Your task to perform on an android device: View the shopping cart on amazon.com. Search for razer huntsman on amazon.com, select the first entry, and add it to the cart. Image 0: 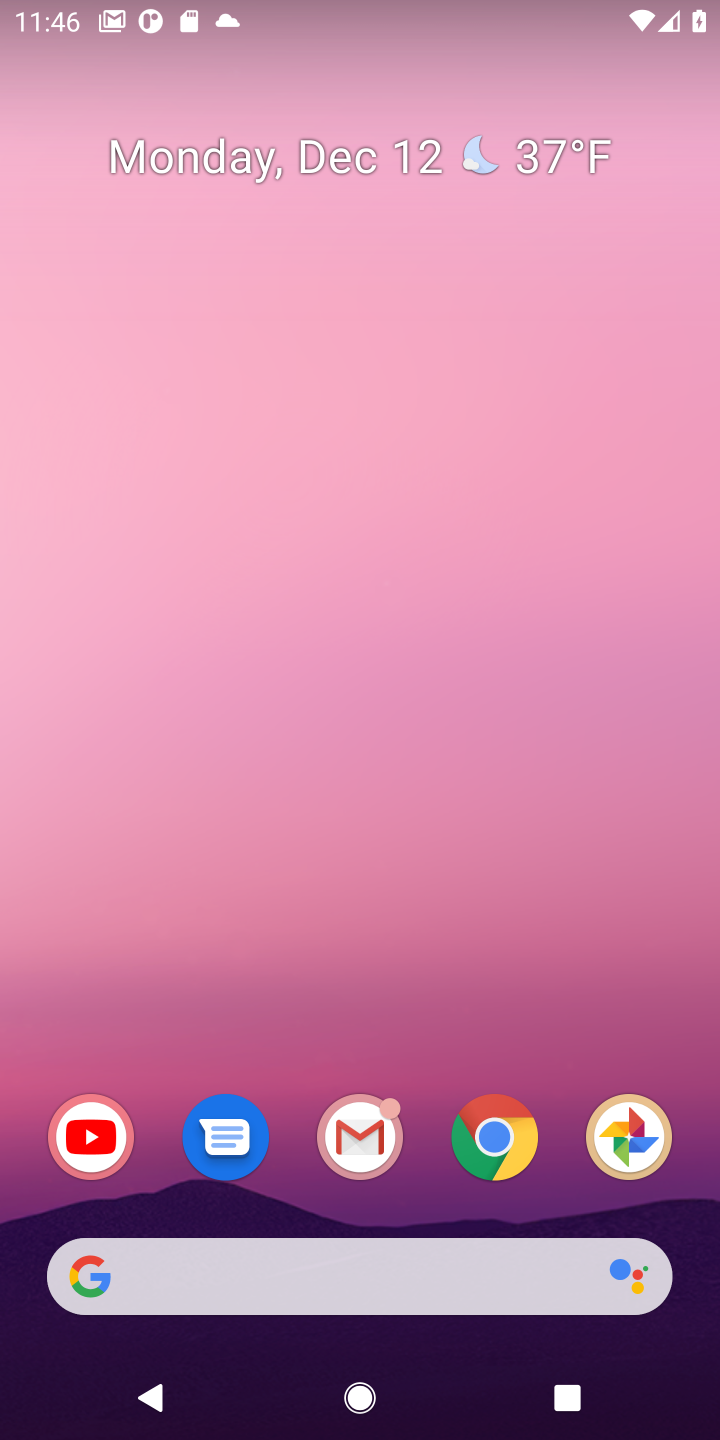
Step 0: click (379, 1265)
Your task to perform on an android device: View the shopping cart on amazon.com. Search for razer huntsman on amazon.com, select the first entry, and add it to the cart. Image 1: 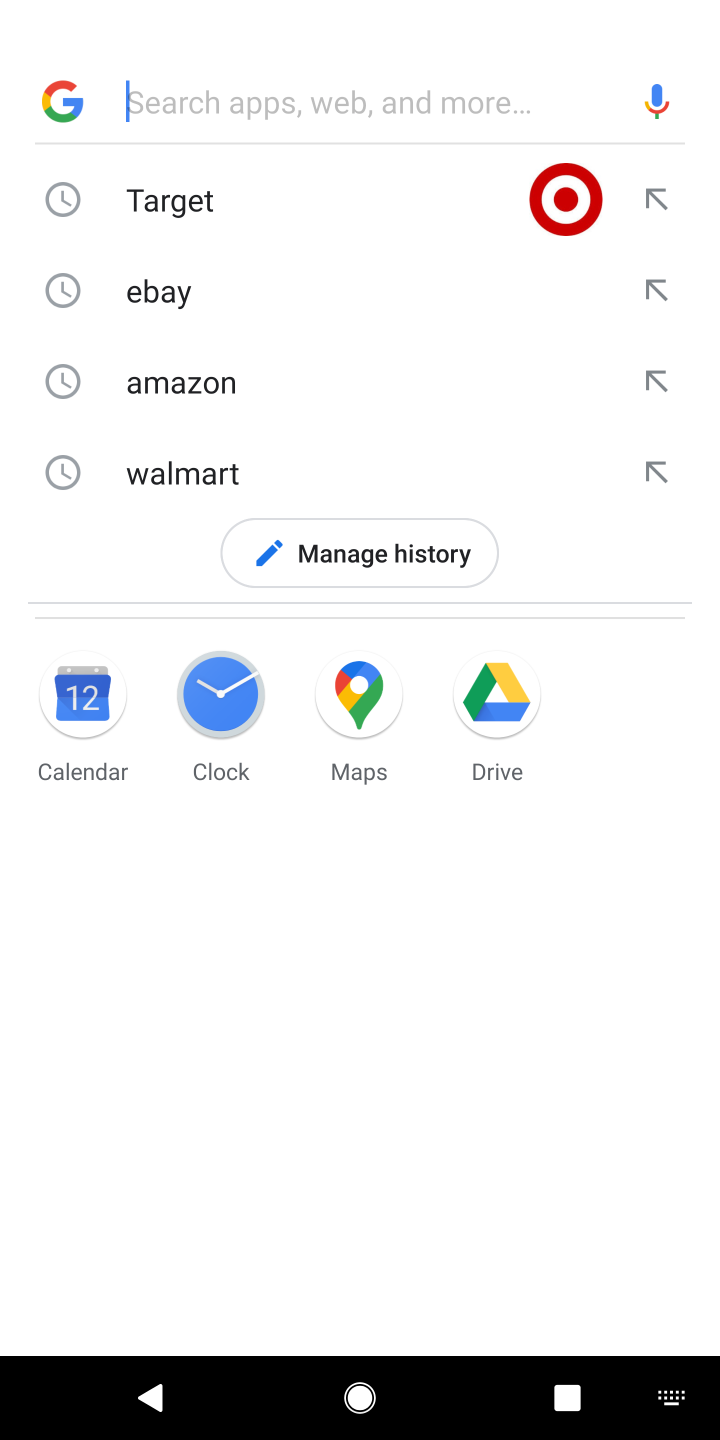
Step 1: type "amazon"
Your task to perform on an android device: View the shopping cart on amazon.com. Search for razer huntsman on amazon.com, select the first entry, and add it to the cart. Image 2: 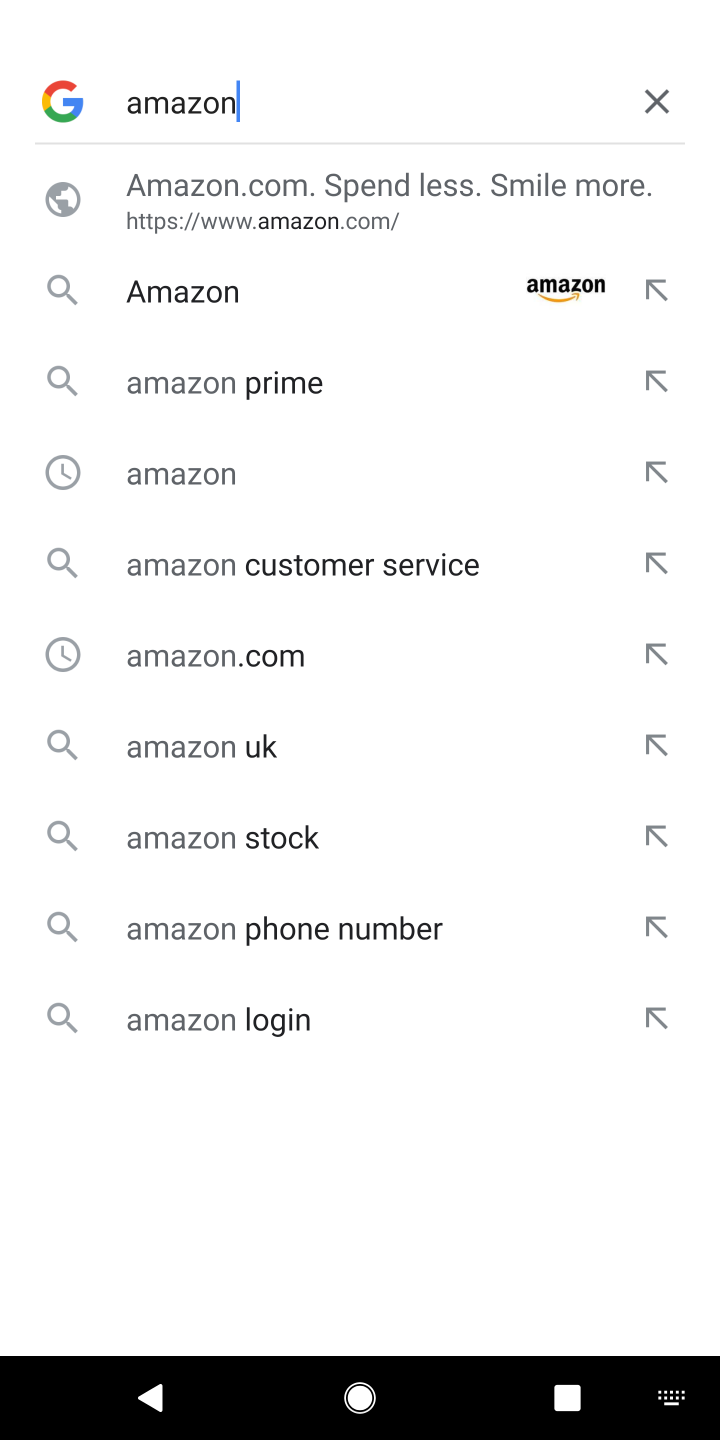
Step 2: click (280, 232)
Your task to perform on an android device: View the shopping cart on amazon.com. Search for razer huntsman on amazon.com, select the first entry, and add it to the cart. Image 3: 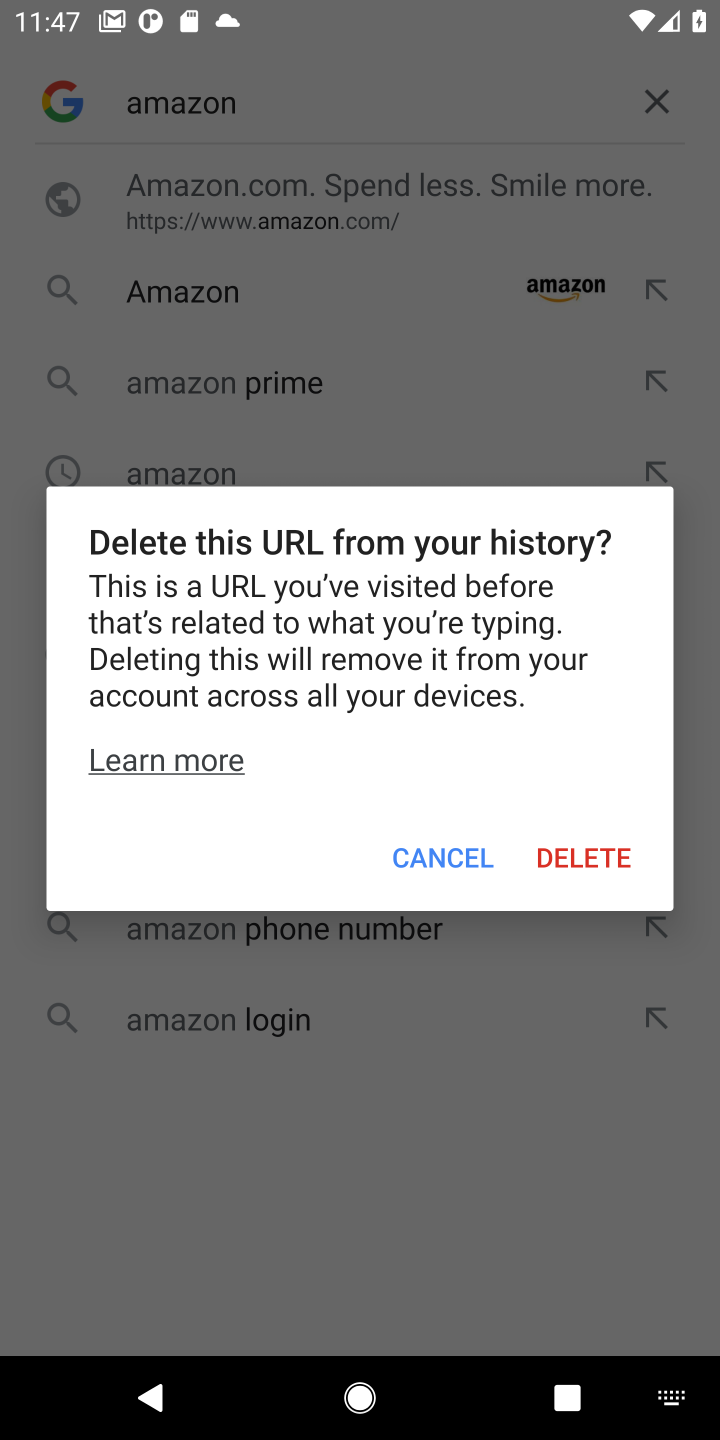
Step 3: click (470, 849)
Your task to perform on an android device: View the shopping cart on amazon.com. Search for razer huntsman on amazon.com, select the first entry, and add it to the cart. Image 4: 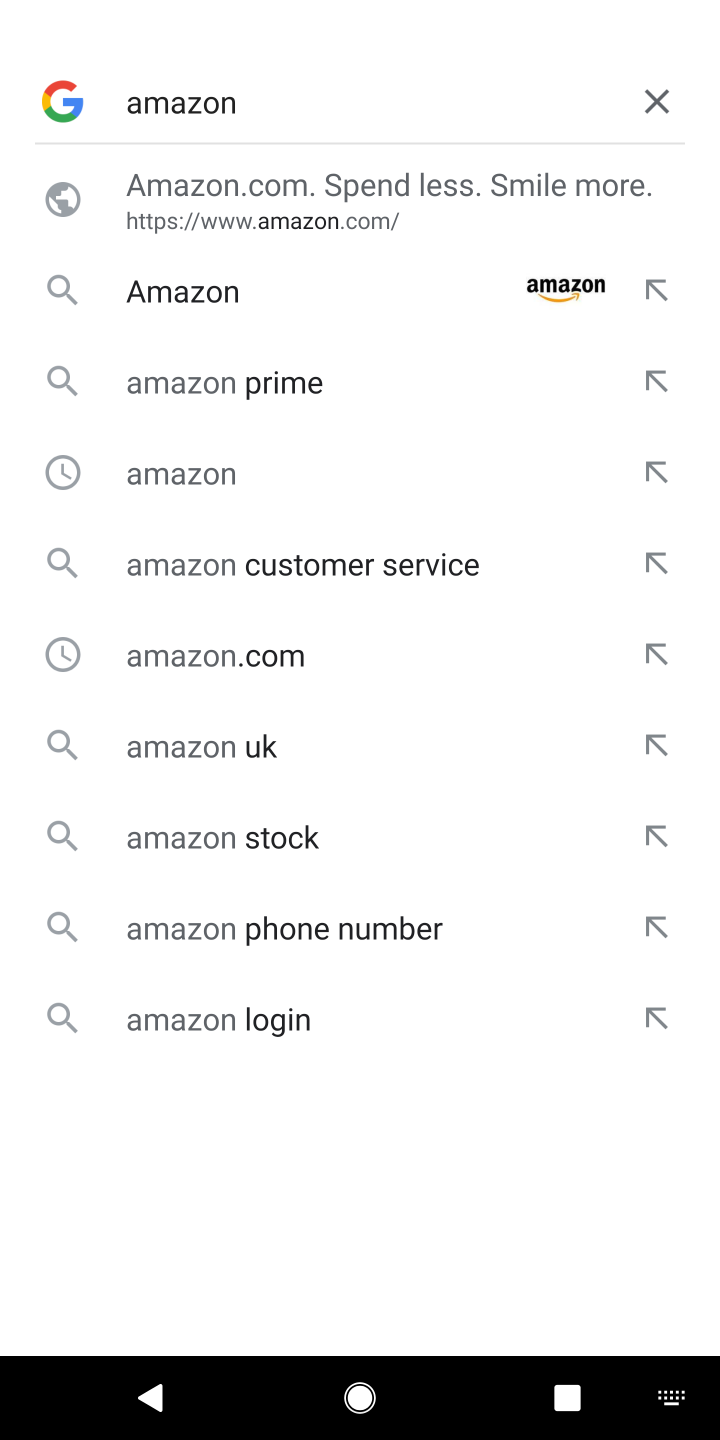
Step 4: click (287, 250)
Your task to perform on an android device: View the shopping cart on amazon.com. Search for razer huntsman on amazon.com, select the first entry, and add it to the cart. Image 5: 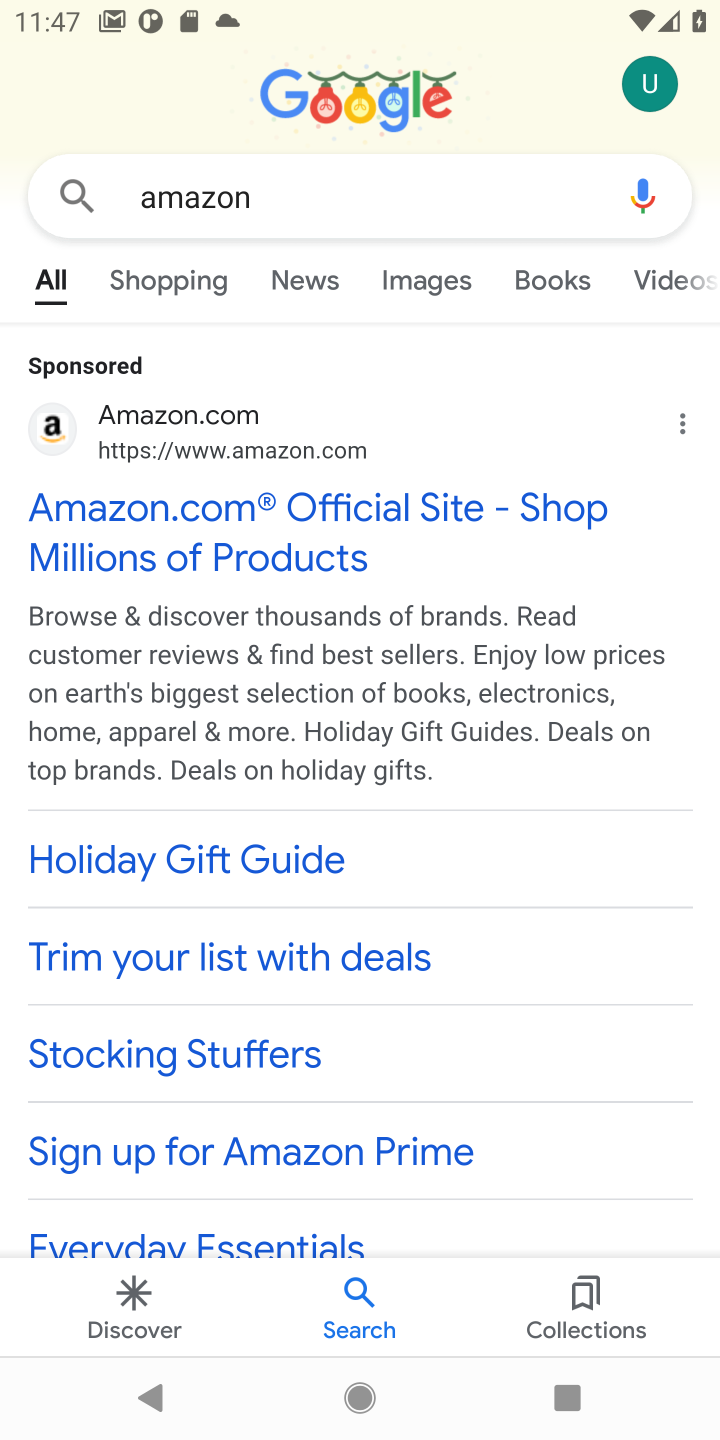
Step 5: click (228, 588)
Your task to perform on an android device: View the shopping cart on amazon.com. Search for razer huntsman on amazon.com, select the first entry, and add it to the cart. Image 6: 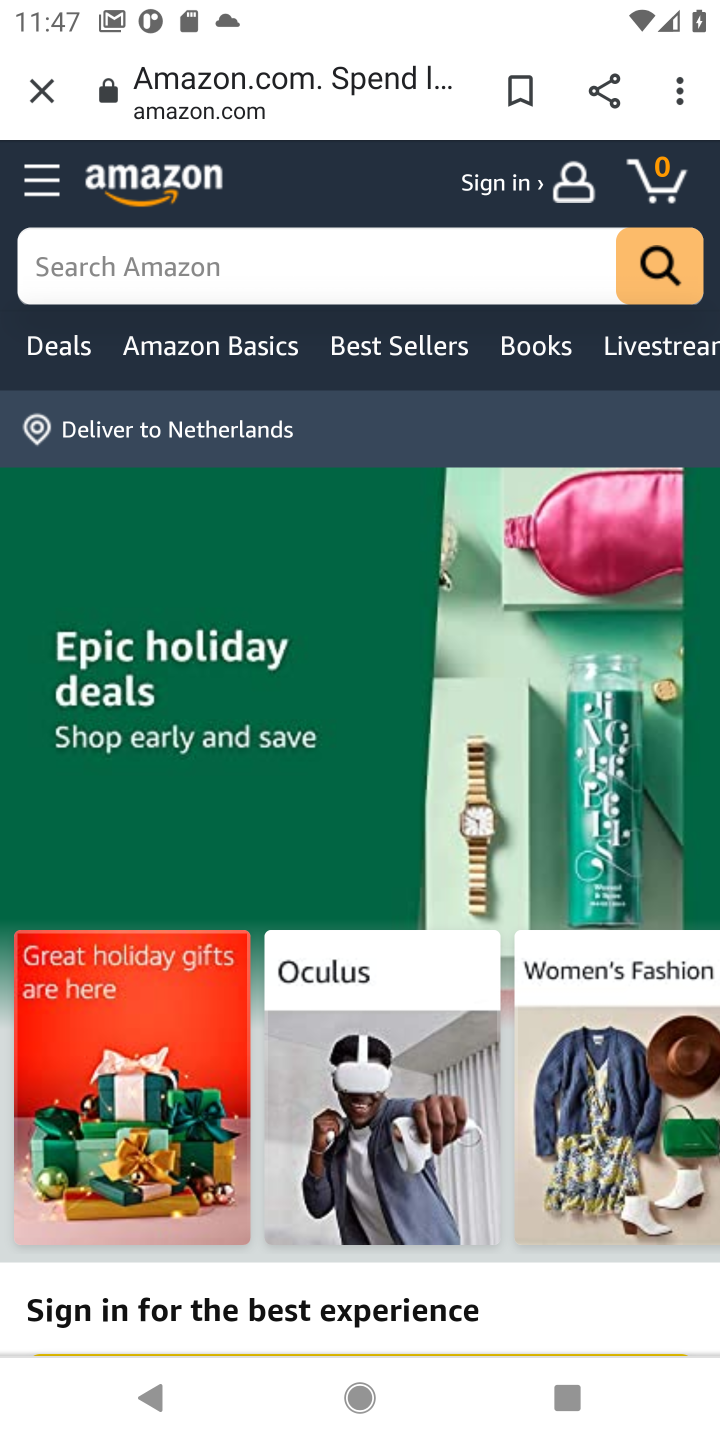
Step 6: click (301, 278)
Your task to perform on an android device: View the shopping cart on amazon.com. Search for razer huntsman on amazon.com, select the first entry, and add it to the cart. Image 7: 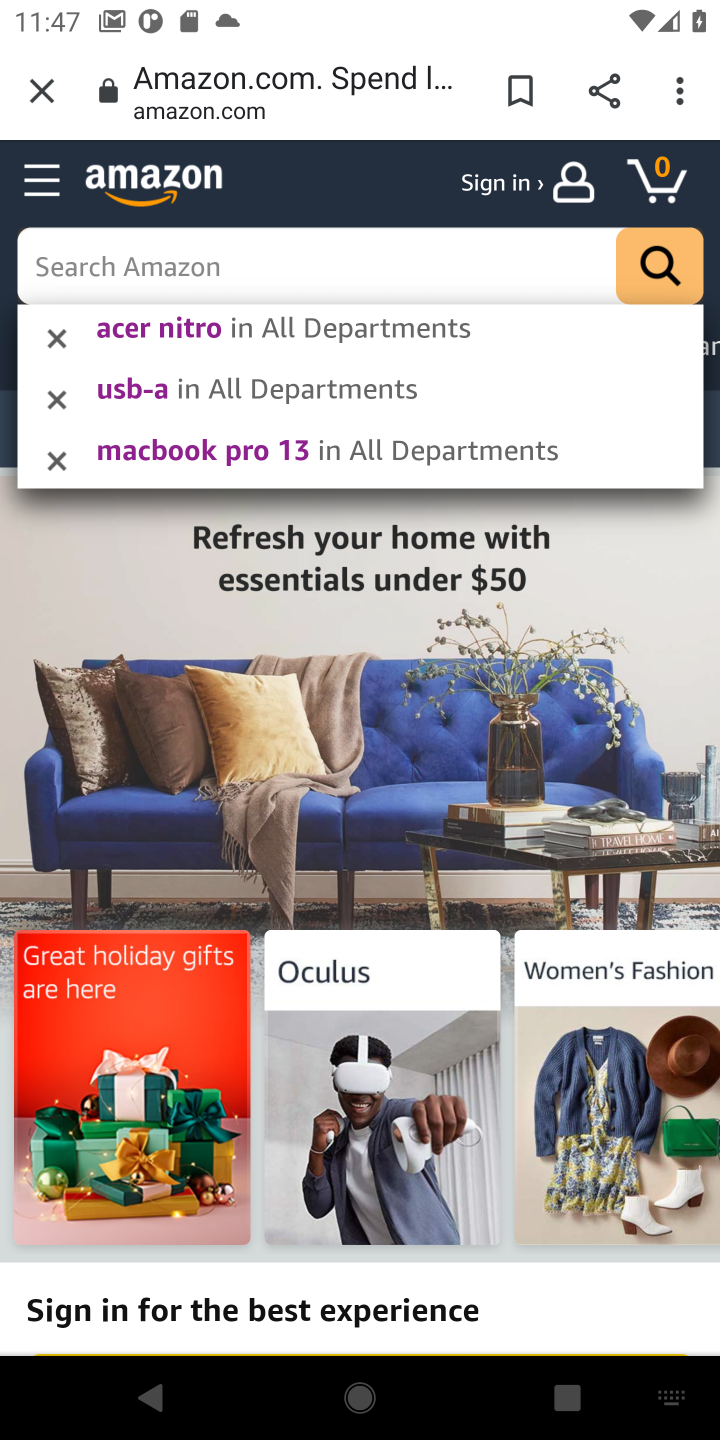
Step 7: type "razer huntsman"
Your task to perform on an android device: View the shopping cart on amazon.com. Search for razer huntsman on amazon.com, select the first entry, and add it to the cart. Image 8: 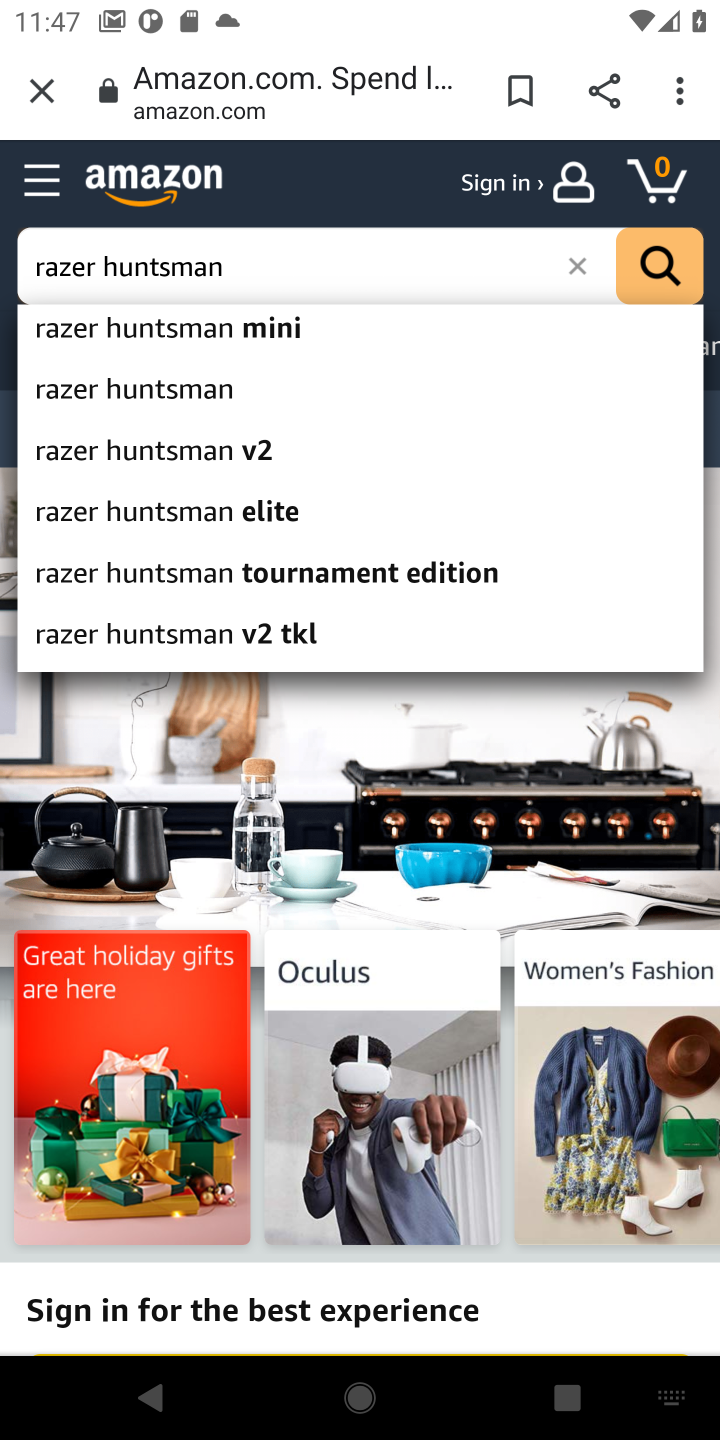
Step 8: click (662, 252)
Your task to perform on an android device: View the shopping cart on amazon.com. Search for razer huntsman on amazon.com, select the first entry, and add it to the cart. Image 9: 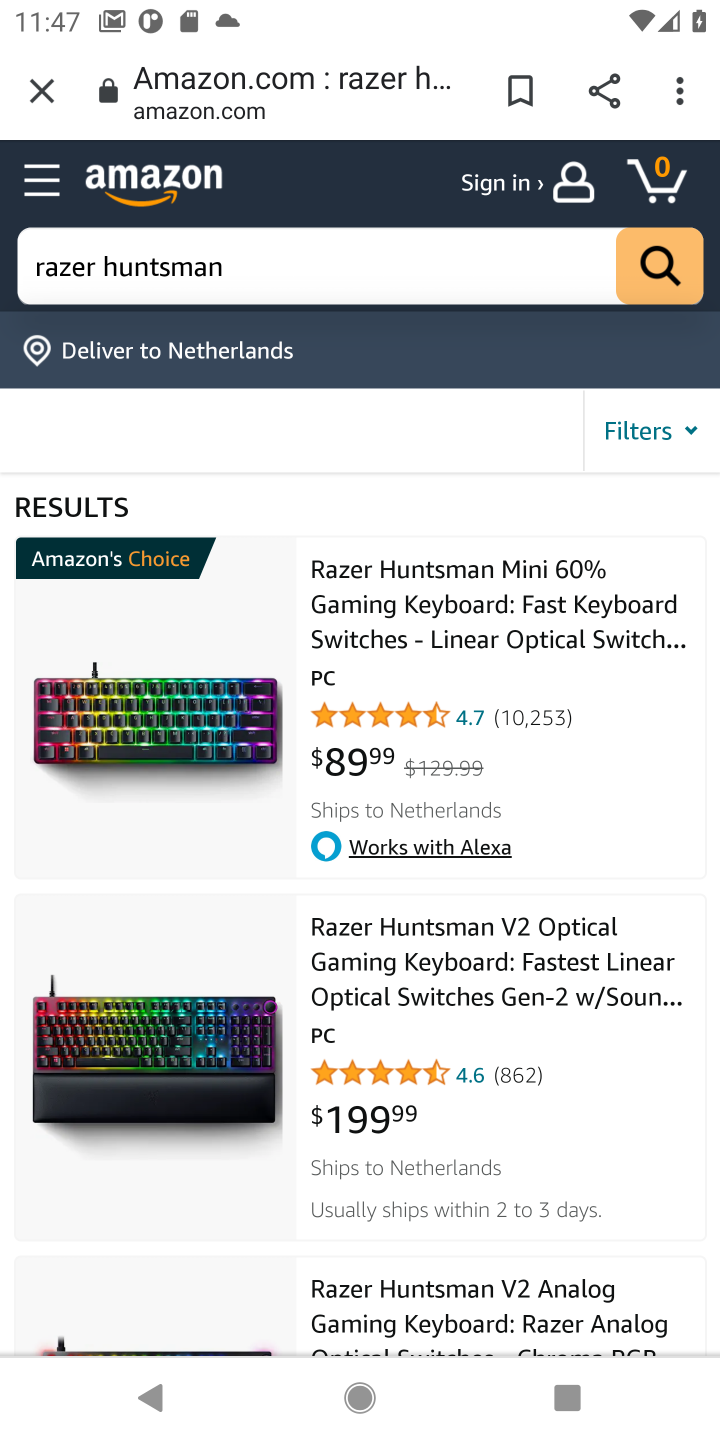
Step 9: click (497, 647)
Your task to perform on an android device: View the shopping cart on amazon.com. Search for razer huntsman on amazon.com, select the first entry, and add it to the cart. Image 10: 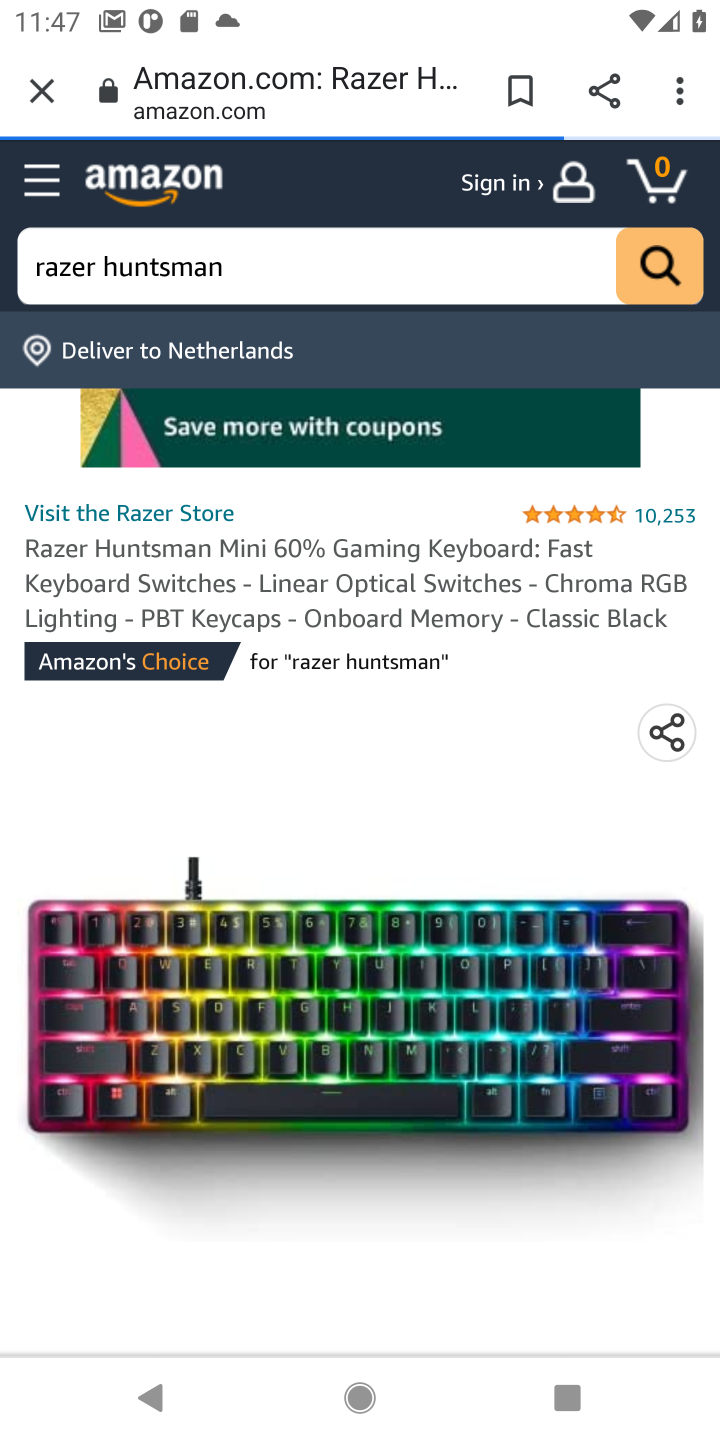
Step 10: drag from (338, 1063) to (396, 295)
Your task to perform on an android device: View the shopping cart on amazon.com. Search for razer huntsman on amazon.com, select the first entry, and add it to the cart. Image 11: 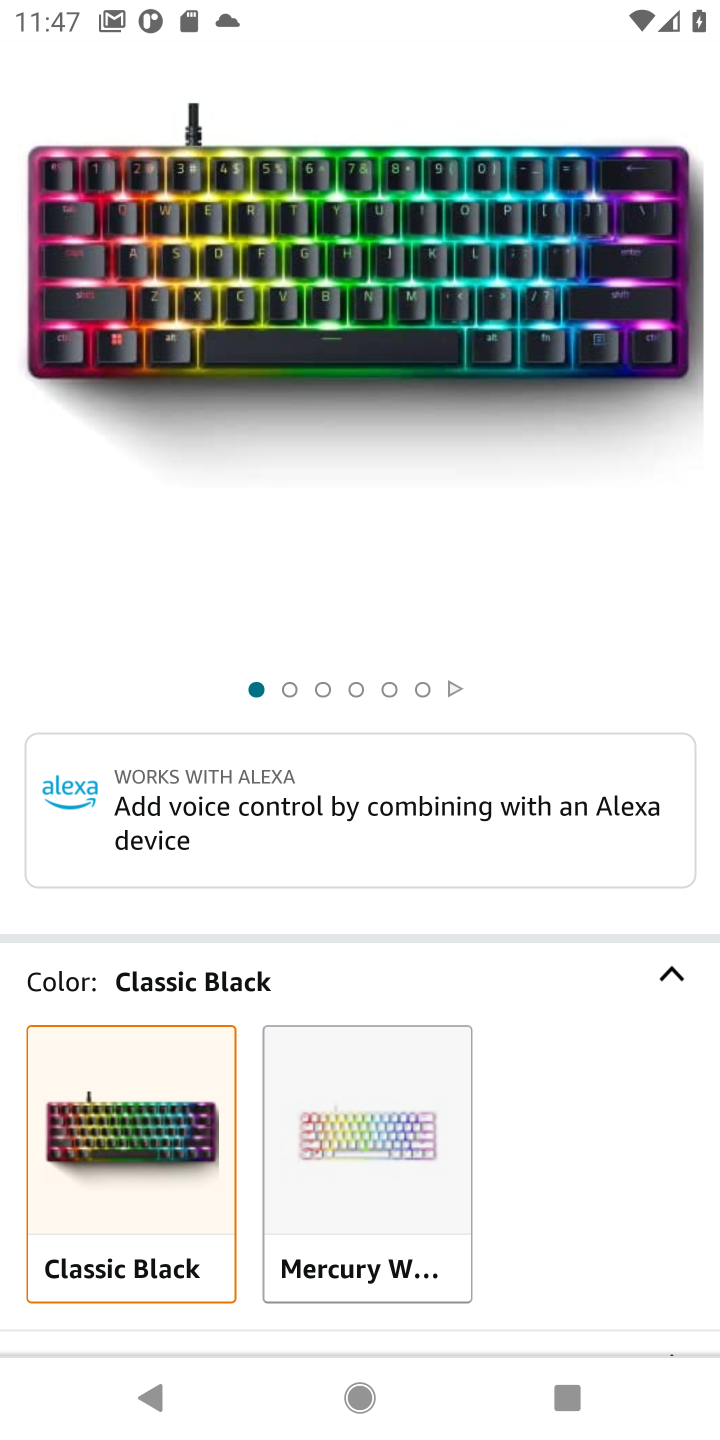
Step 11: drag from (549, 1176) to (498, 312)
Your task to perform on an android device: View the shopping cart on amazon.com. Search for razer huntsman on amazon.com, select the first entry, and add it to the cart. Image 12: 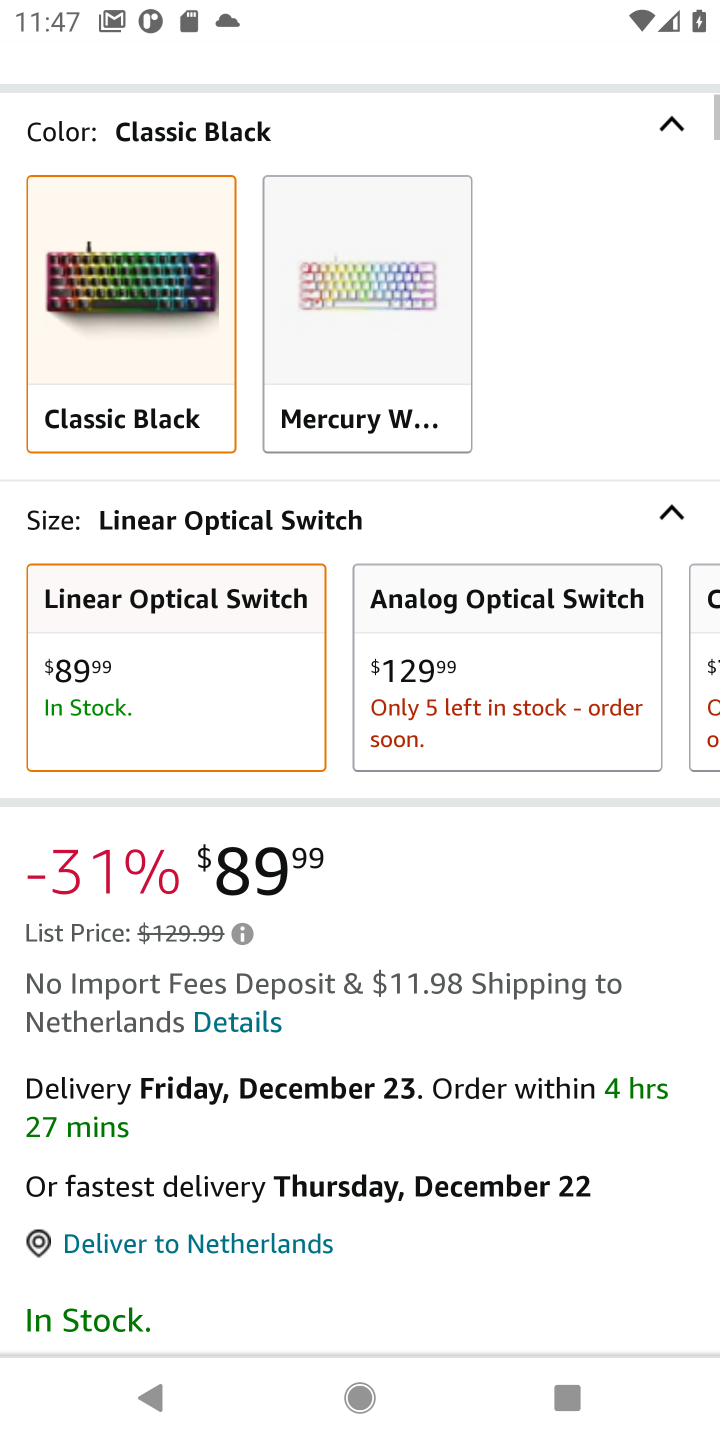
Step 12: drag from (466, 1065) to (441, 131)
Your task to perform on an android device: View the shopping cart on amazon.com. Search for razer huntsman on amazon.com, select the first entry, and add it to the cart. Image 13: 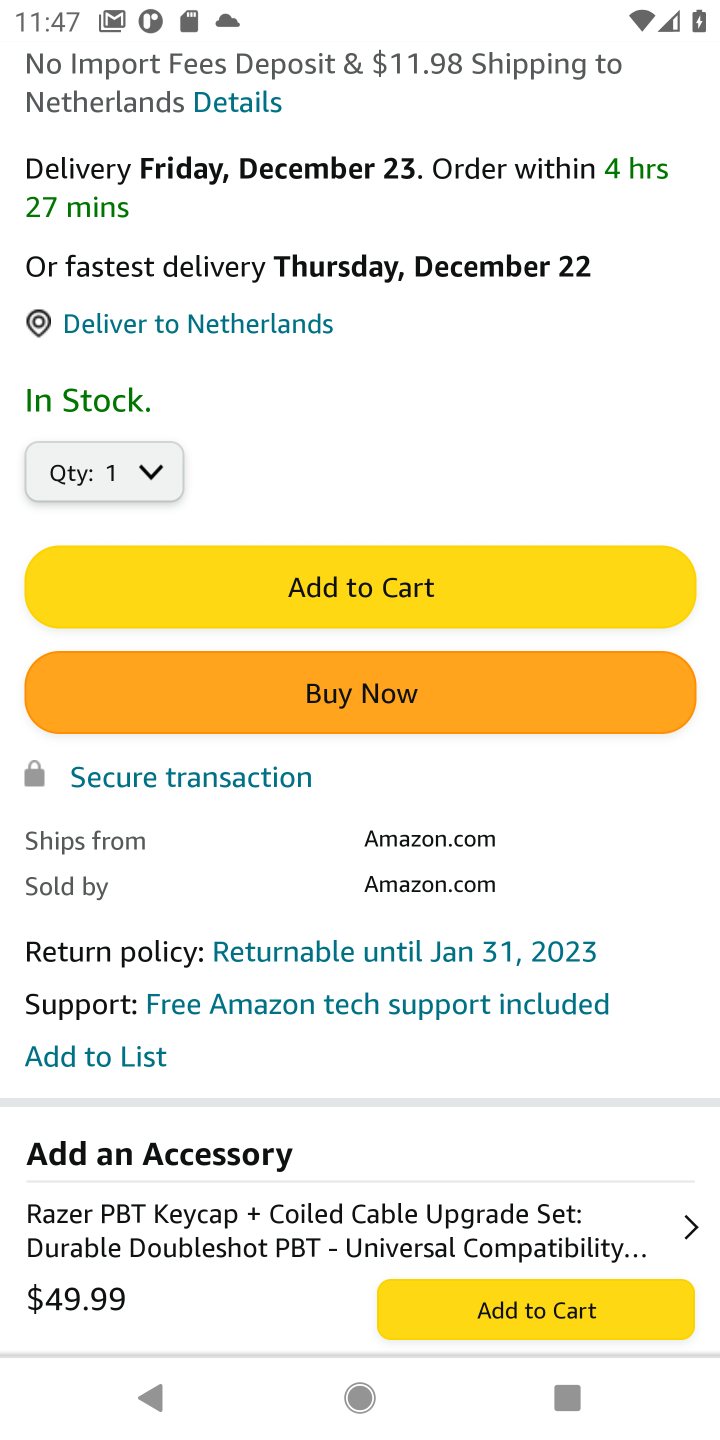
Step 13: click (524, 586)
Your task to perform on an android device: View the shopping cart on amazon.com. Search for razer huntsman on amazon.com, select the first entry, and add it to the cart. Image 14: 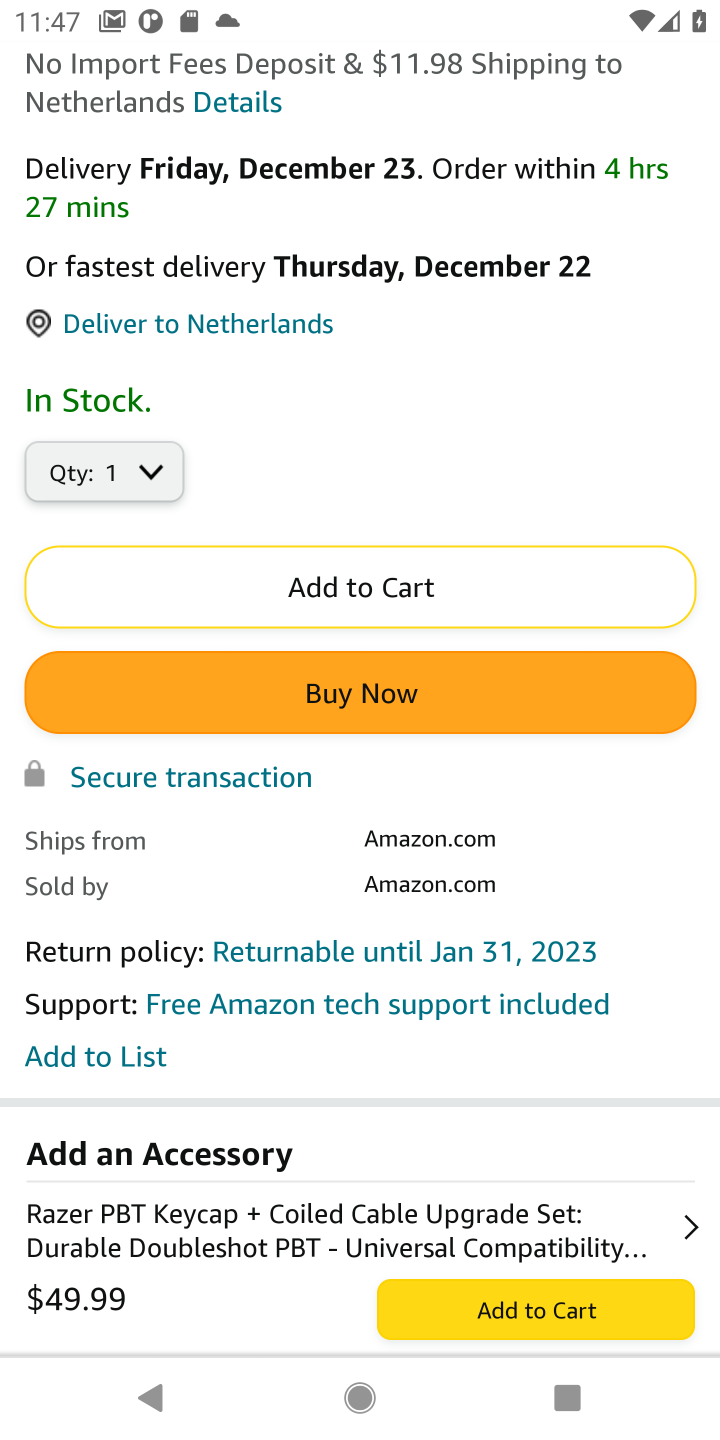
Step 14: task complete